Your task to perform on an android device: check out phone information Image 0: 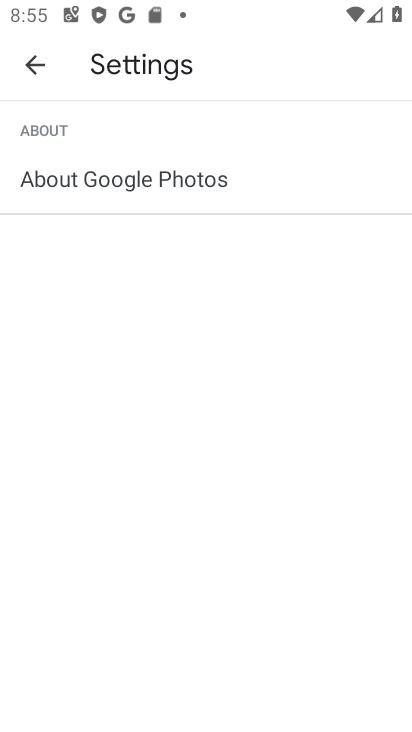
Step 0: press back button
Your task to perform on an android device: check out phone information Image 1: 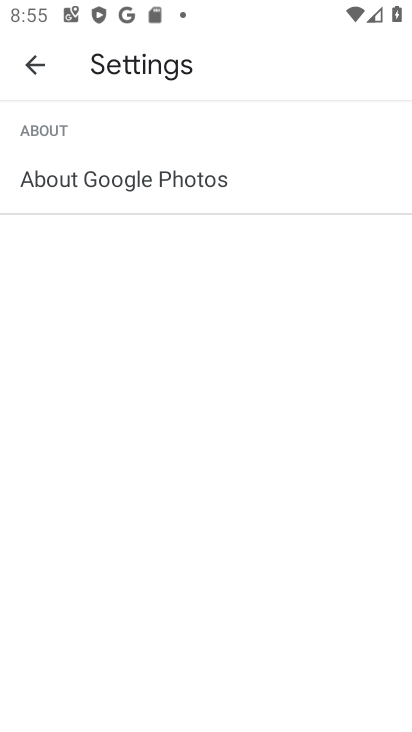
Step 1: press home button
Your task to perform on an android device: check out phone information Image 2: 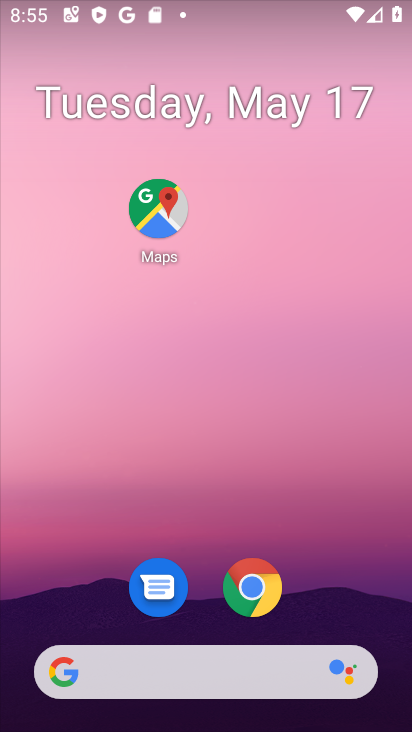
Step 2: drag from (61, 507) to (290, 167)
Your task to perform on an android device: check out phone information Image 3: 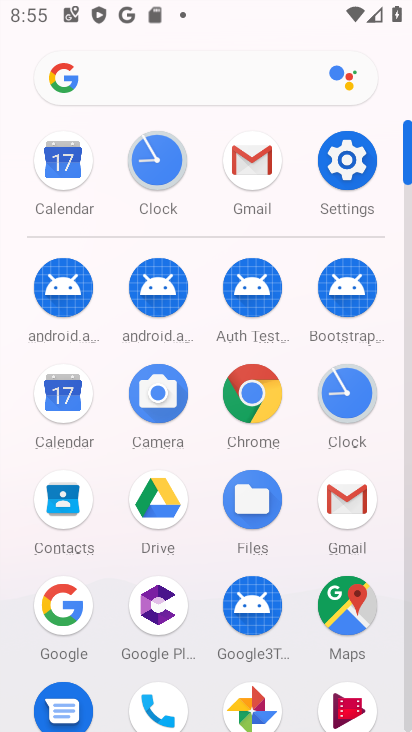
Step 3: click (155, 691)
Your task to perform on an android device: check out phone information Image 4: 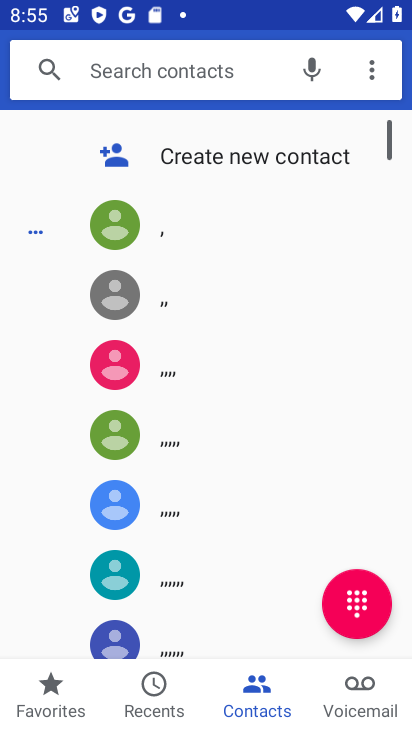
Step 4: task complete